Your task to perform on an android device: open a bookmark in the chrome app Image 0: 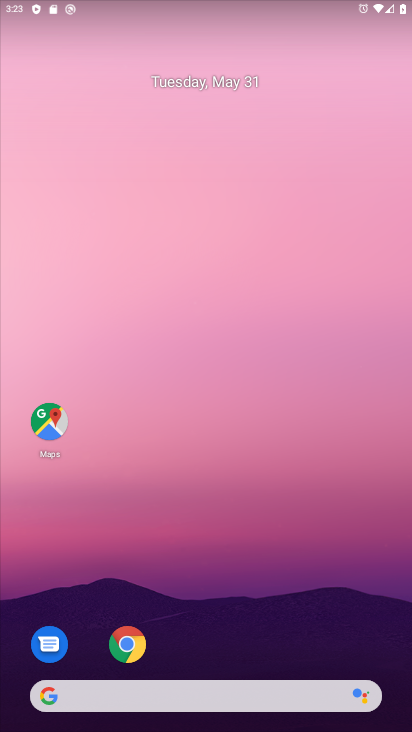
Step 0: click (143, 656)
Your task to perform on an android device: open a bookmark in the chrome app Image 1: 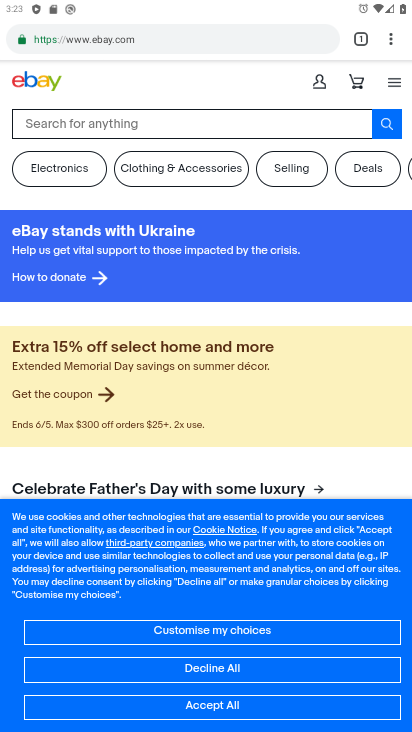
Step 1: click (390, 48)
Your task to perform on an android device: open a bookmark in the chrome app Image 2: 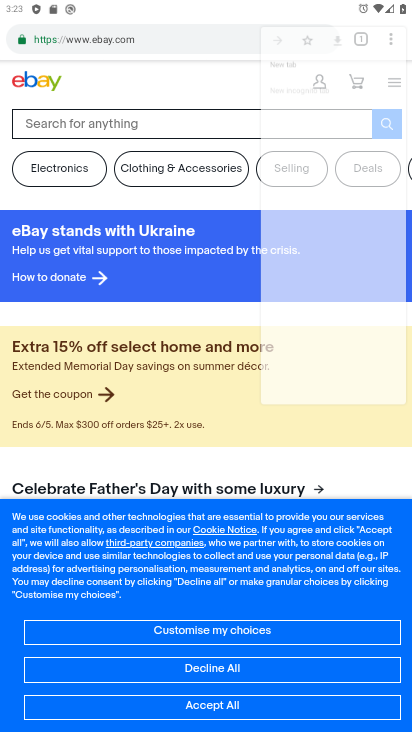
Step 2: click (390, 48)
Your task to perform on an android device: open a bookmark in the chrome app Image 3: 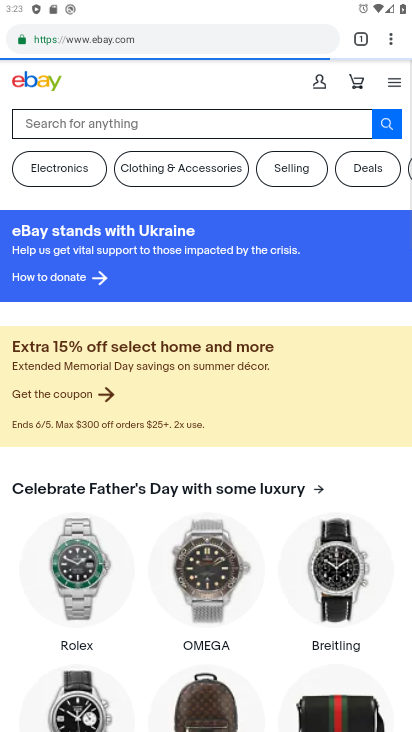
Step 3: click (397, 42)
Your task to perform on an android device: open a bookmark in the chrome app Image 4: 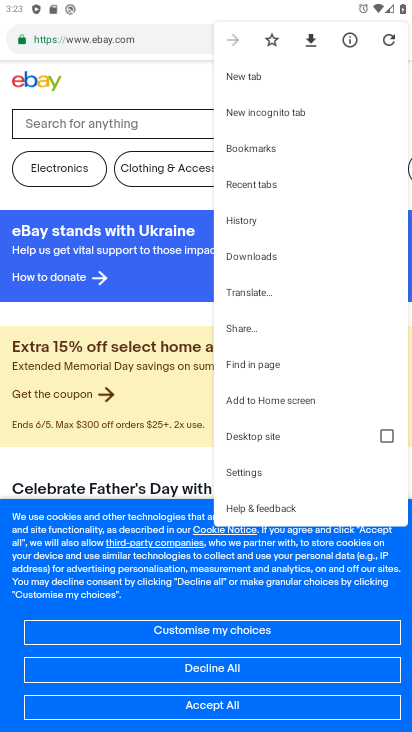
Step 4: click (274, 141)
Your task to perform on an android device: open a bookmark in the chrome app Image 5: 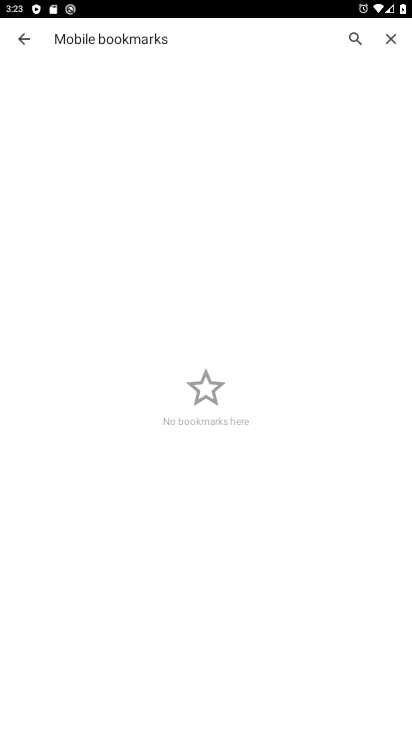
Step 5: task complete